Your task to perform on an android device: What's a good restaurant in New Jersey? Image 0: 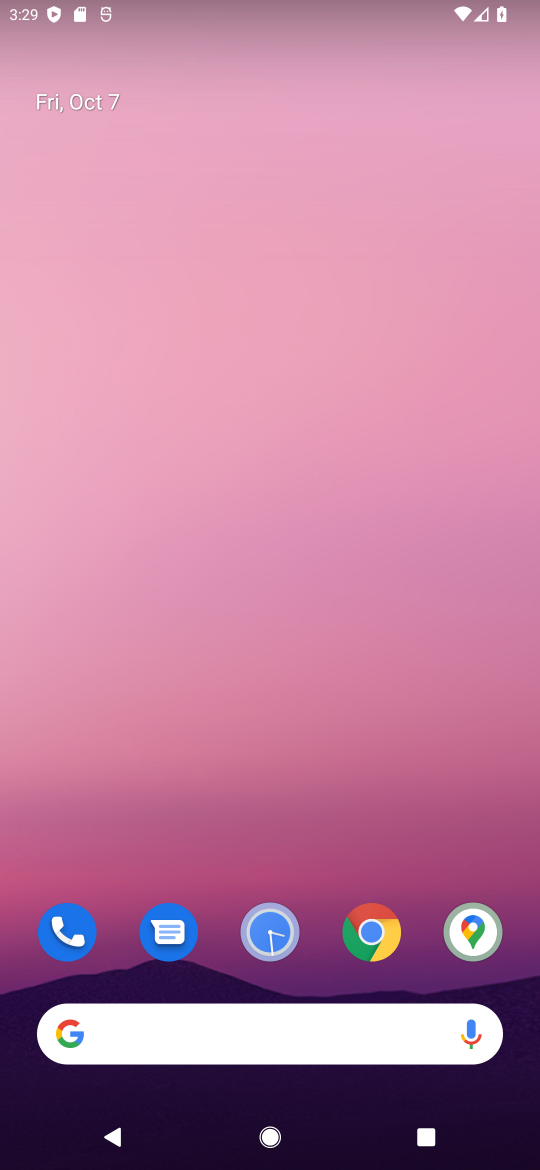
Step 0: drag from (321, 999) to (285, 535)
Your task to perform on an android device: What's a good restaurant in New Jersey? Image 1: 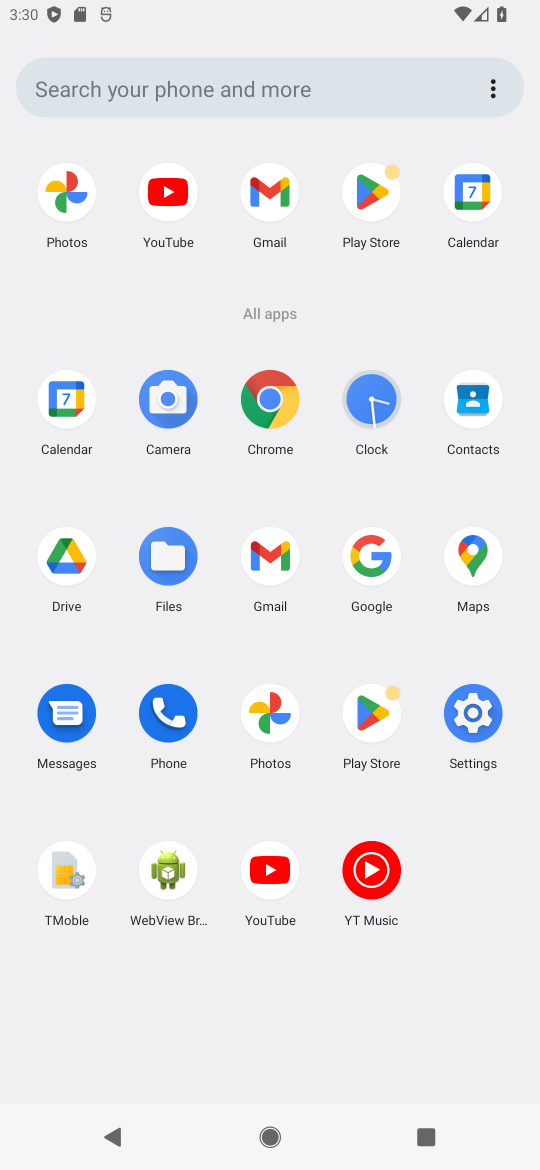
Step 1: click (359, 560)
Your task to perform on an android device: What's a good restaurant in New Jersey? Image 2: 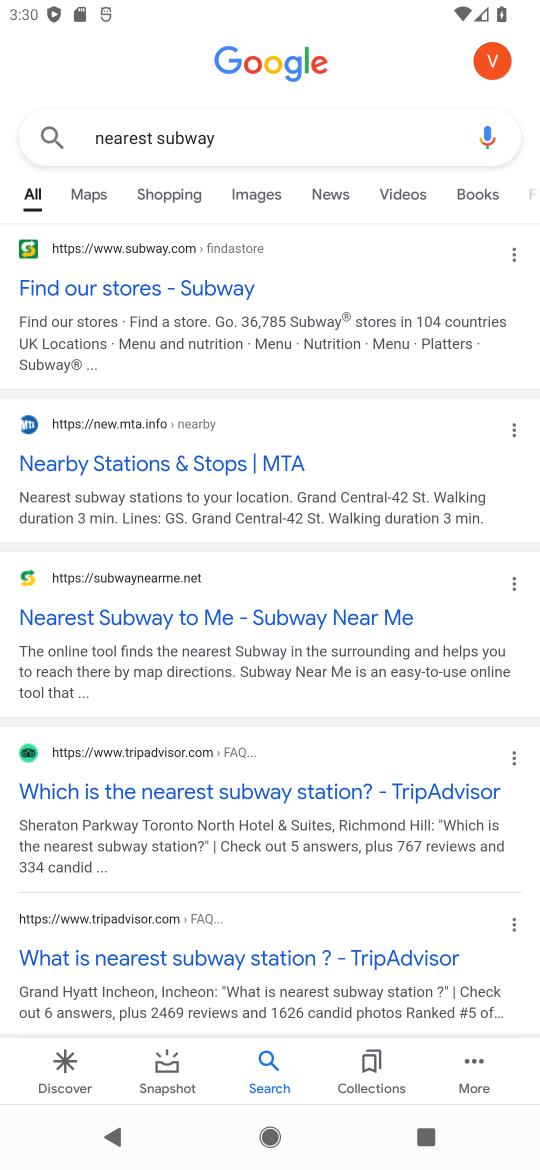
Step 2: click (391, 123)
Your task to perform on an android device: What's a good restaurant in New Jersey? Image 3: 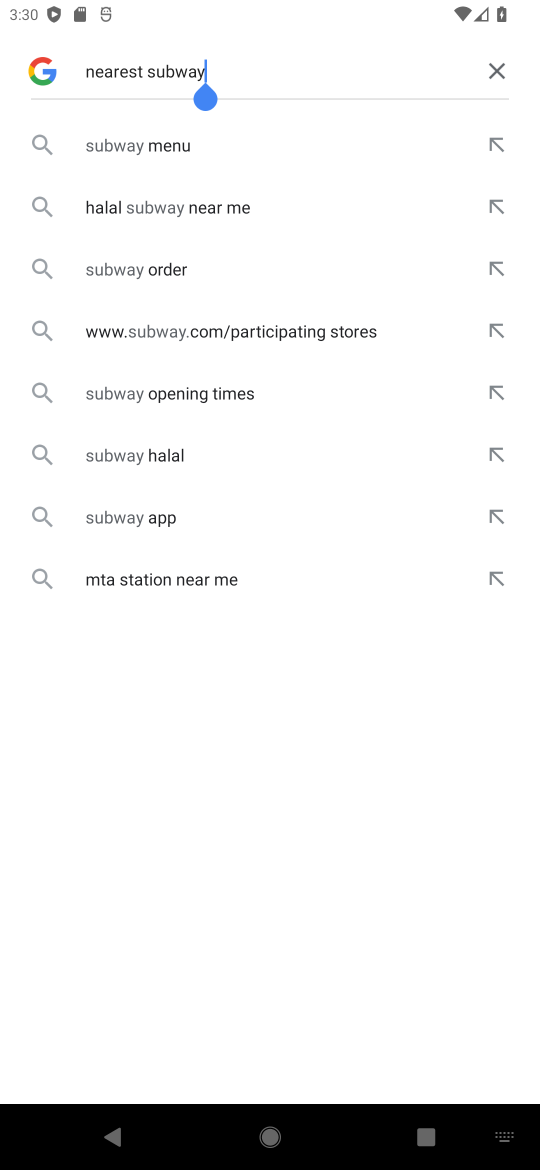
Step 3: click (501, 66)
Your task to perform on an android device: What's a good restaurant in New Jersey? Image 4: 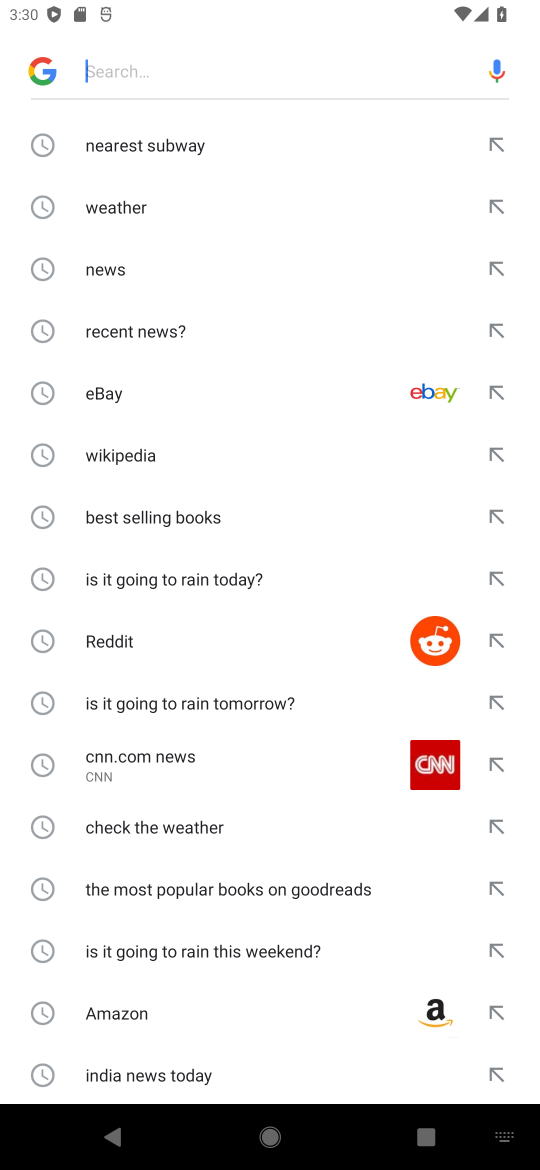
Step 4: type "good restaurant in new jersey"
Your task to perform on an android device: What's a good restaurant in New Jersey? Image 5: 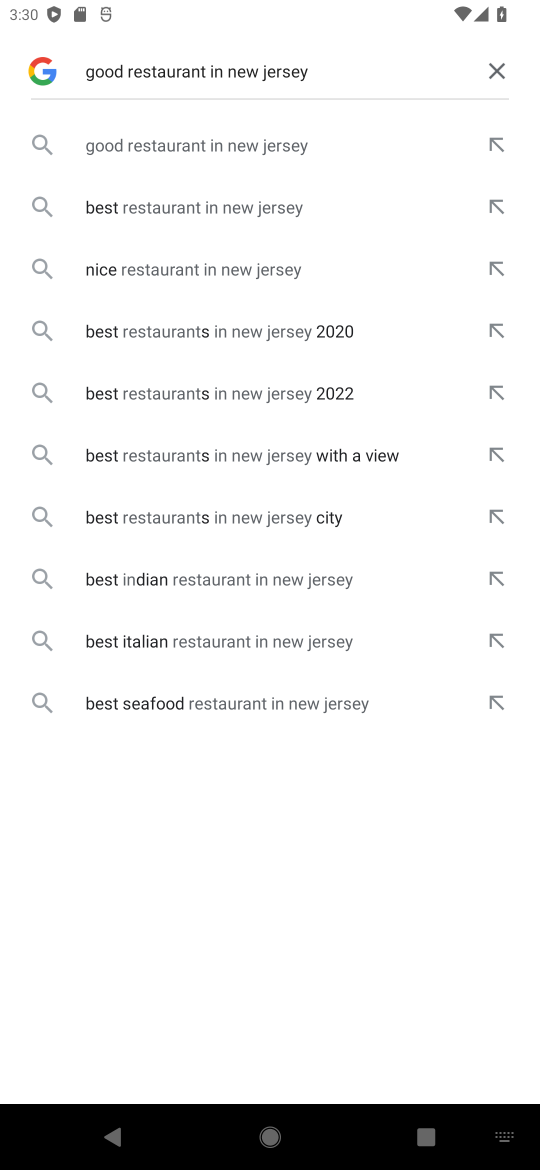
Step 5: click (343, 148)
Your task to perform on an android device: What's a good restaurant in New Jersey? Image 6: 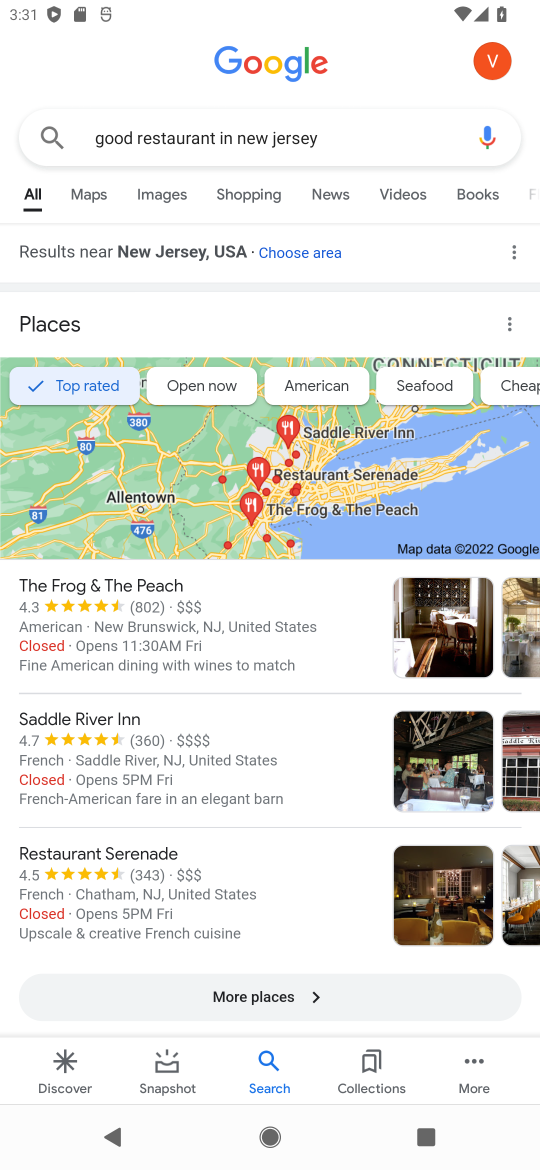
Step 6: task complete